Your task to perform on an android device: turn on translation in the chrome app Image 0: 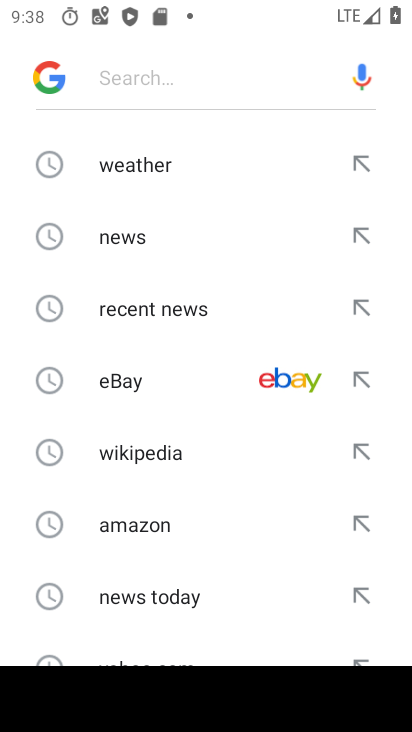
Step 0: press home button
Your task to perform on an android device: turn on translation in the chrome app Image 1: 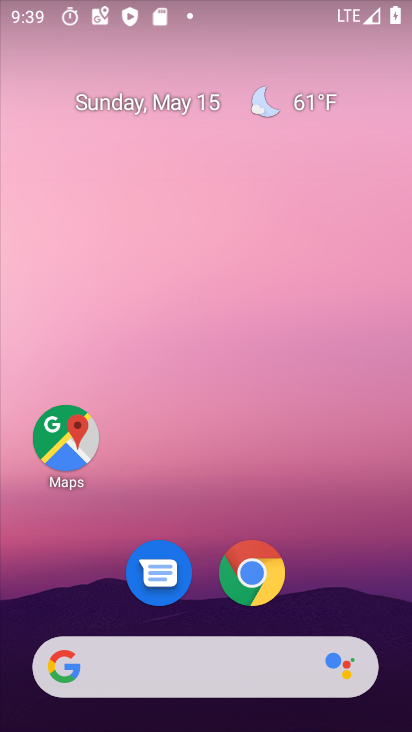
Step 1: click (229, 570)
Your task to perform on an android device: turn on translation in the chrome app Image 2: 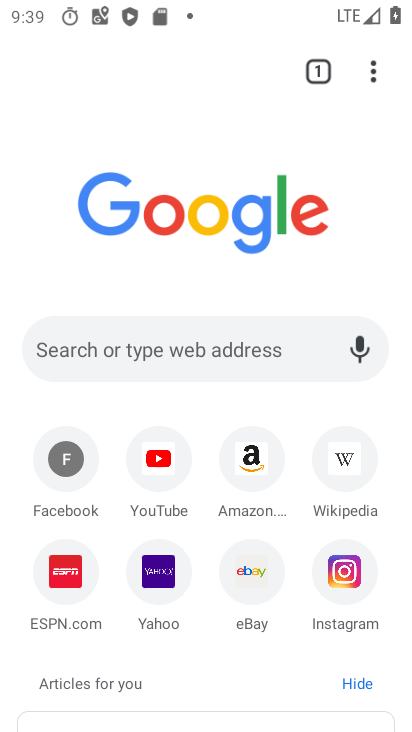
Step 2: click (372, 74)
Your task to perform on an android device: turn on translation in the chrome app Image 3: 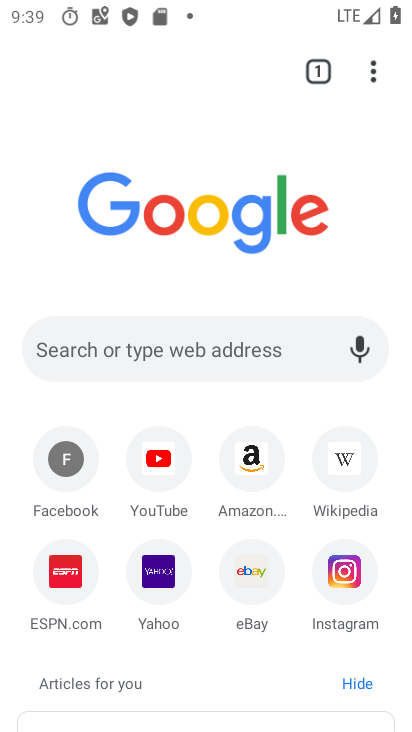
Step 3: click (370, 73)
Your task to perform on an android device: turn on translation in the chrome app Image 4: 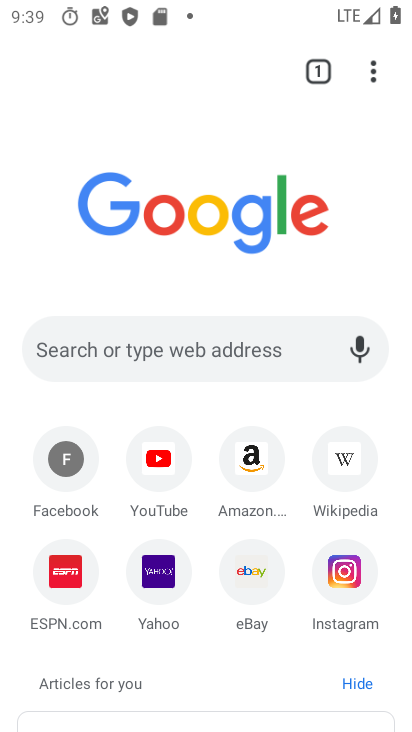
Step 4: click (364, 77)
Your task to perform on an android device: turn on translation in the chrome app Image 5: 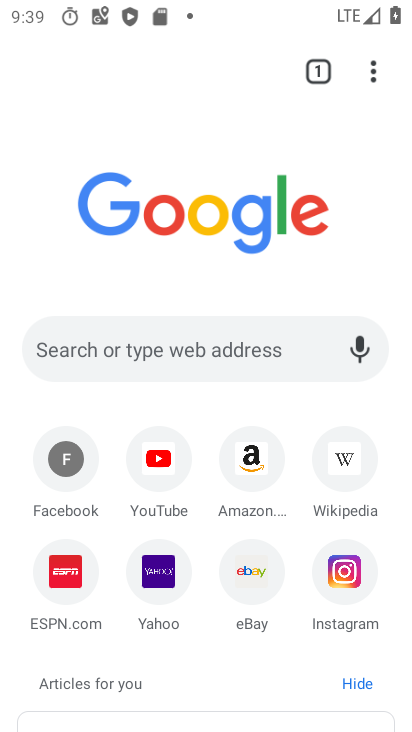
Step 5: click (389, 63)
Your task to perform on an android device: turn on translation in the chrome app Image 6: 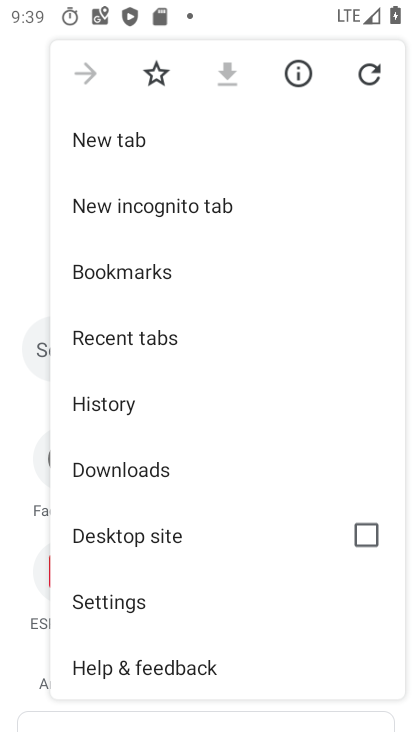
Step 6: click (110, 604)
Your task to perform on an android device: turn on translation in the chrome app Image 7: 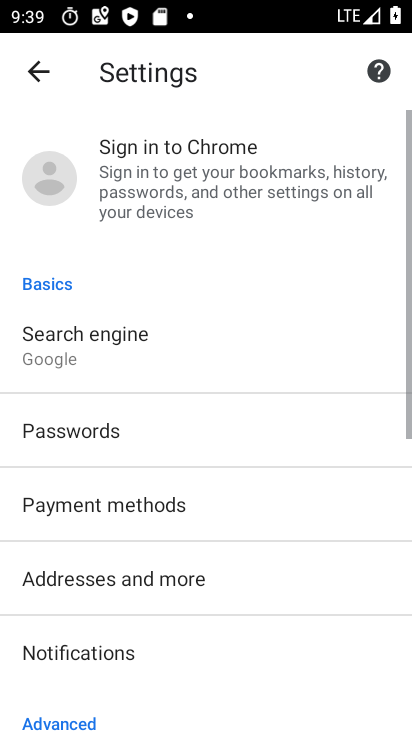
Step 7: drag from (107, 665) to (288, 186)
Your task to perform on an android device: turn on translation in the chrome app Image 8: 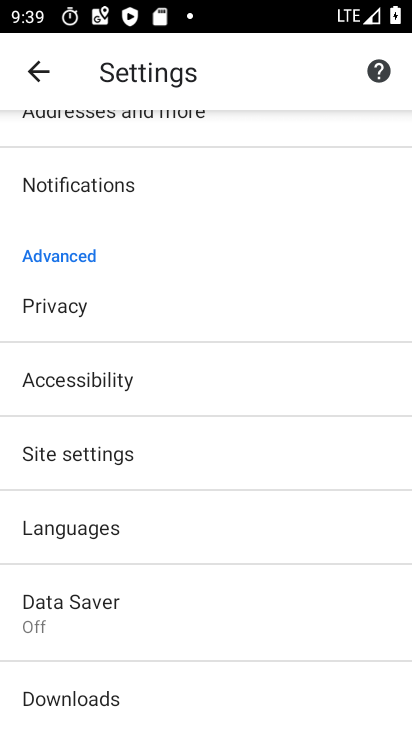
Step 8: click (64, 522)
Your task to perform on an android device: turn on translation in the chrome app Image 9: 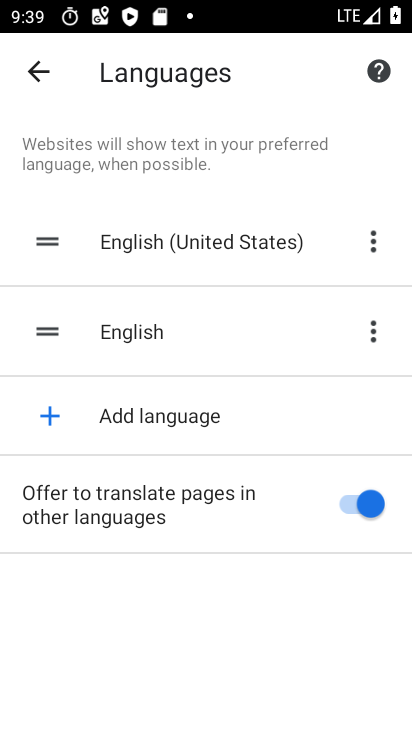
Step 9: task complete